Your task to perform on an android device: clear all cookies in the chrome app Image 0: 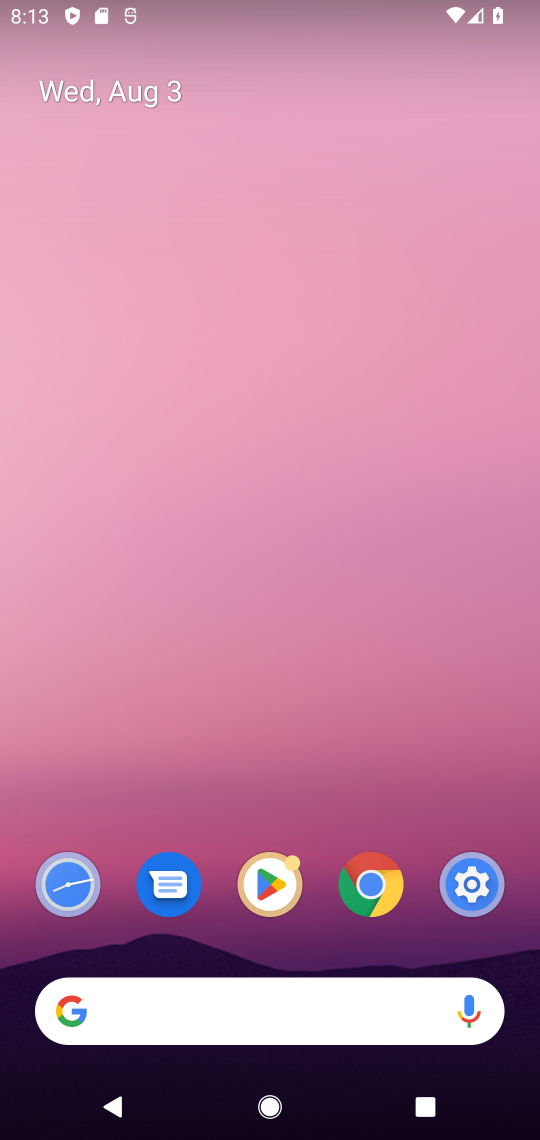
Step 0: click (353, 879)
Your task to perform on an android device: clear all cookies in the chrome app Image 1: 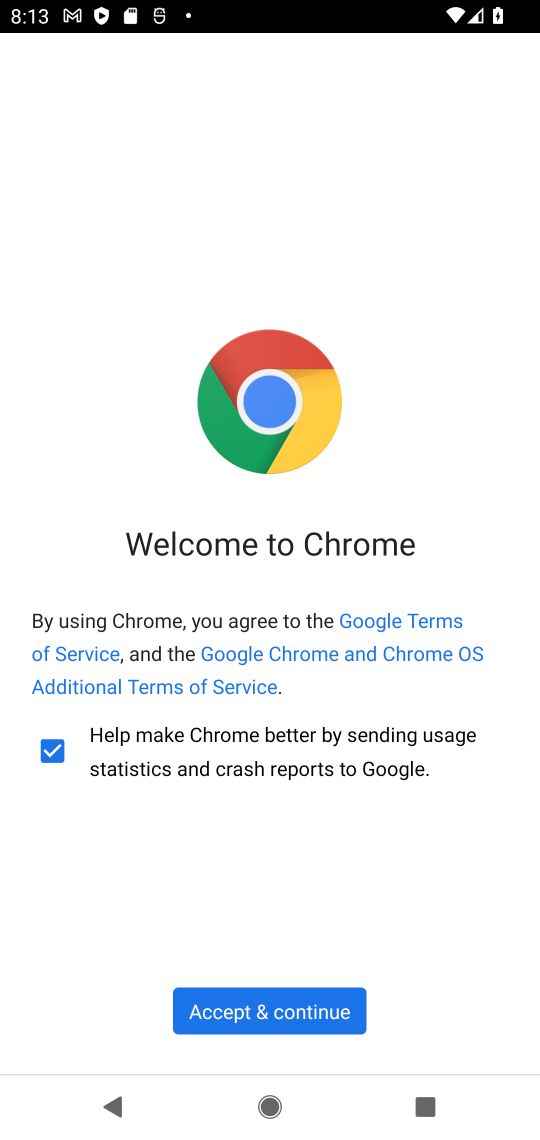
Step 1: click (266, 1010)
Your task to perform on an android device: clear all cookies in the chrome app Image 2: 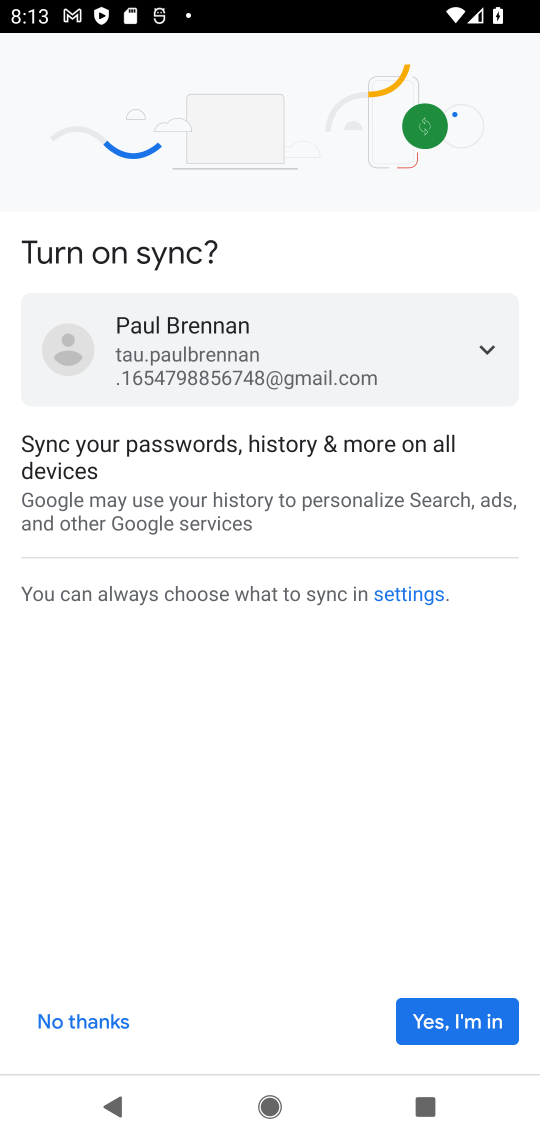
Step 2: click (103, 1018)
Your task to perform on an android device: clear all cookies in the chrome app Image 3: 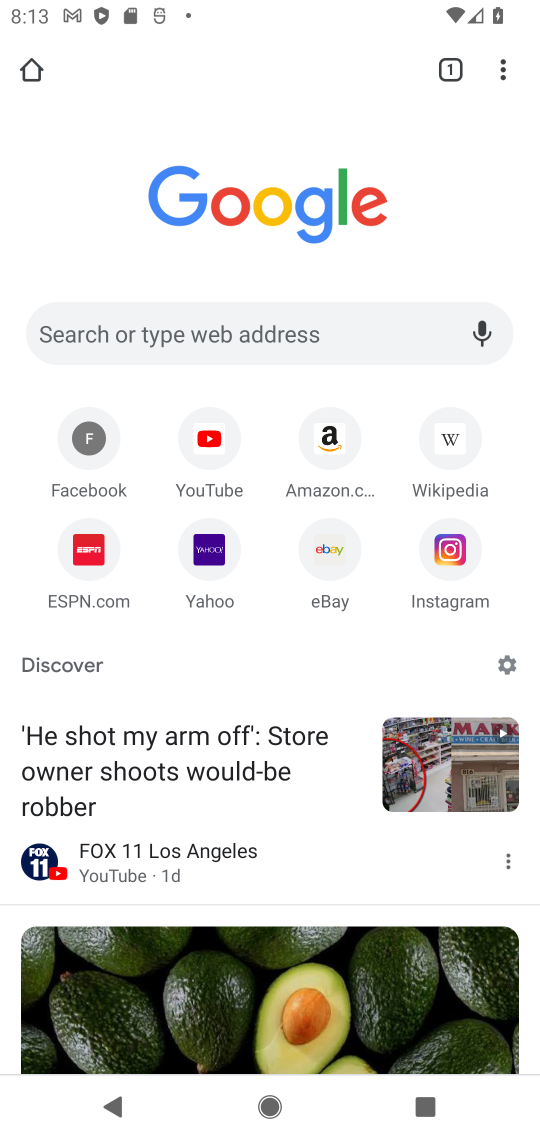
Step 3: click (514, 61)
Your task to perform on an android device: clear all cookies in the chrome app Image 4: 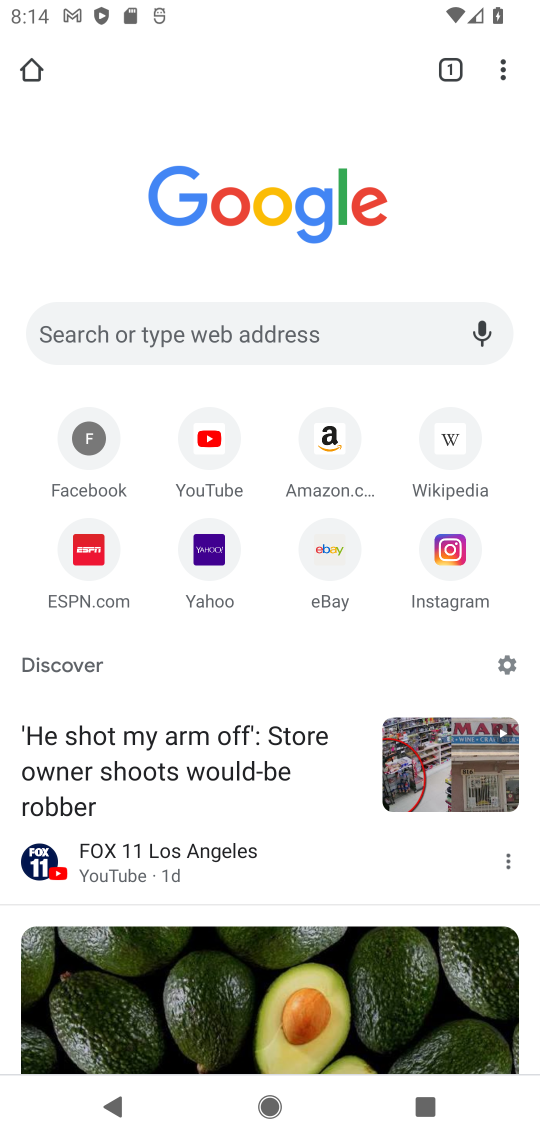
Step 4: click (507, 72)
Your task to perform on an android device: clear all cookies in the chrome app Image 5: 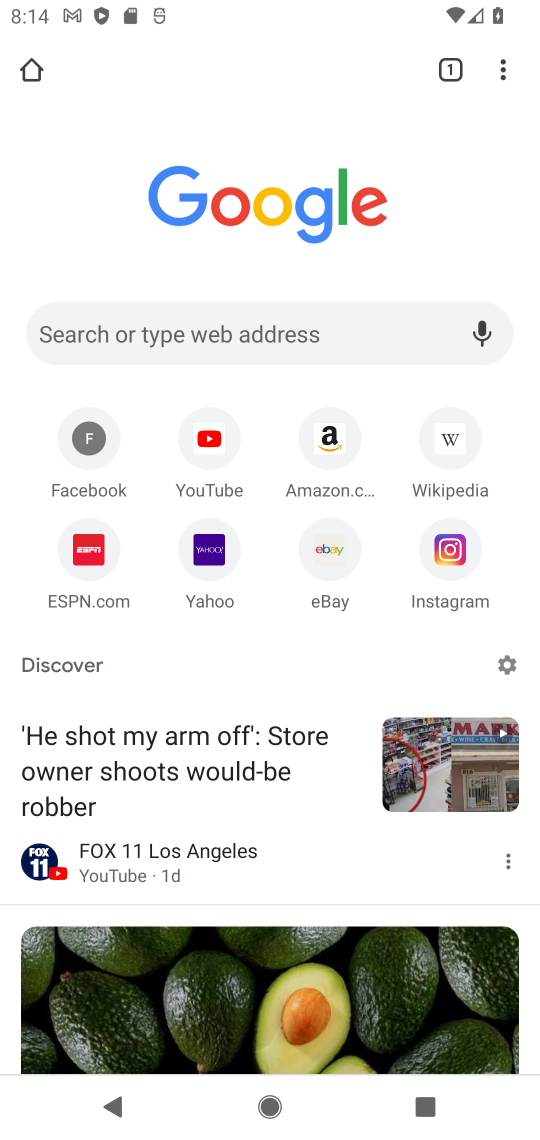
Step 5: click (505, 66)
Your task to perform on an android device: clear all cookies in the chrome app Image 6: 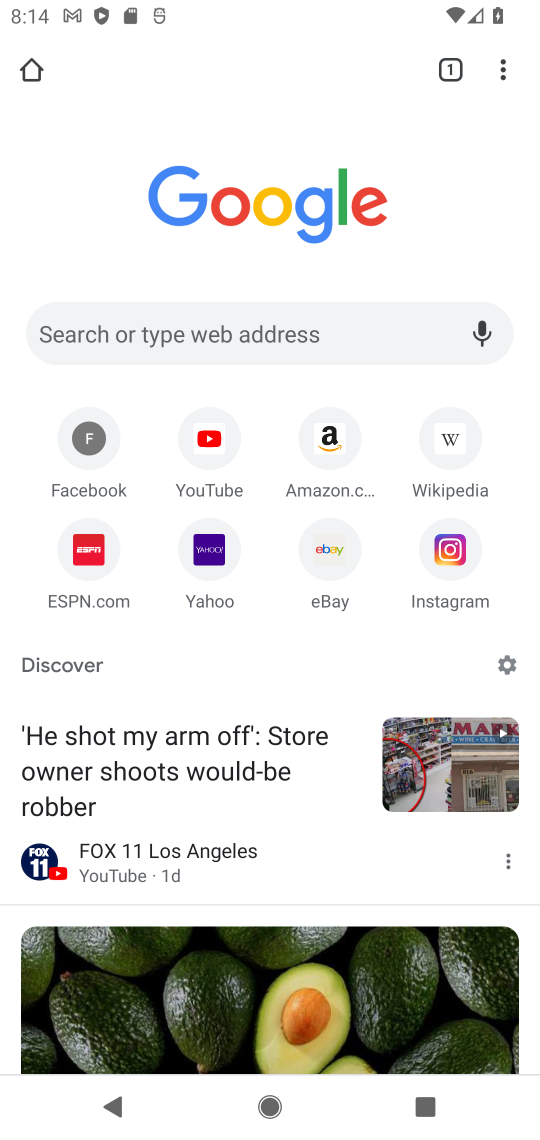
Step 6: click (500, 90)
Your task to perform on an android device: clear all cookies in the chrome app Image 7: 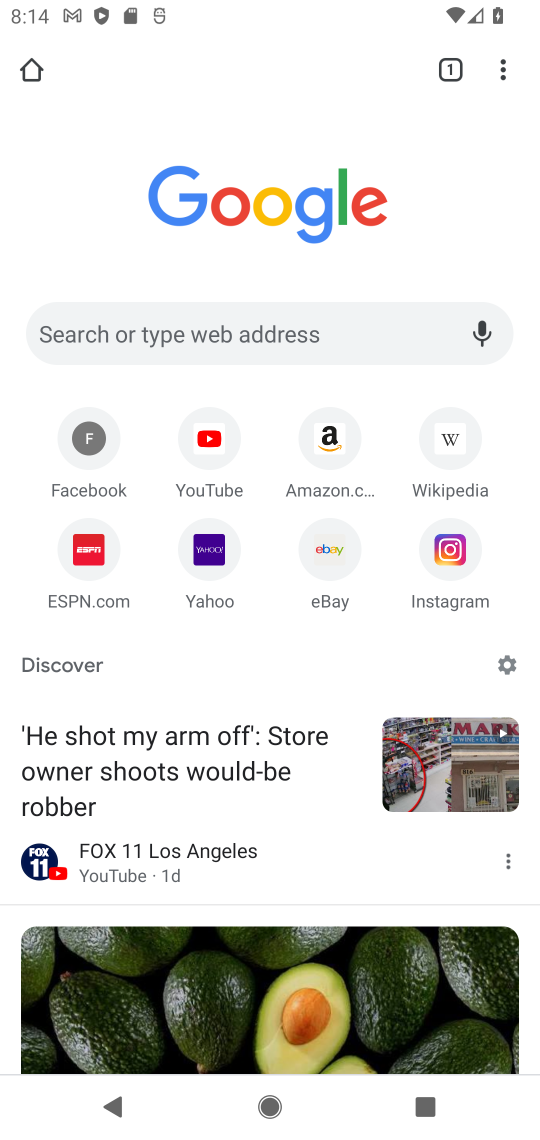
Step 7: click (503, 60)
Your task to perform on an android device: clear all cookies in the chrome app Image 8: 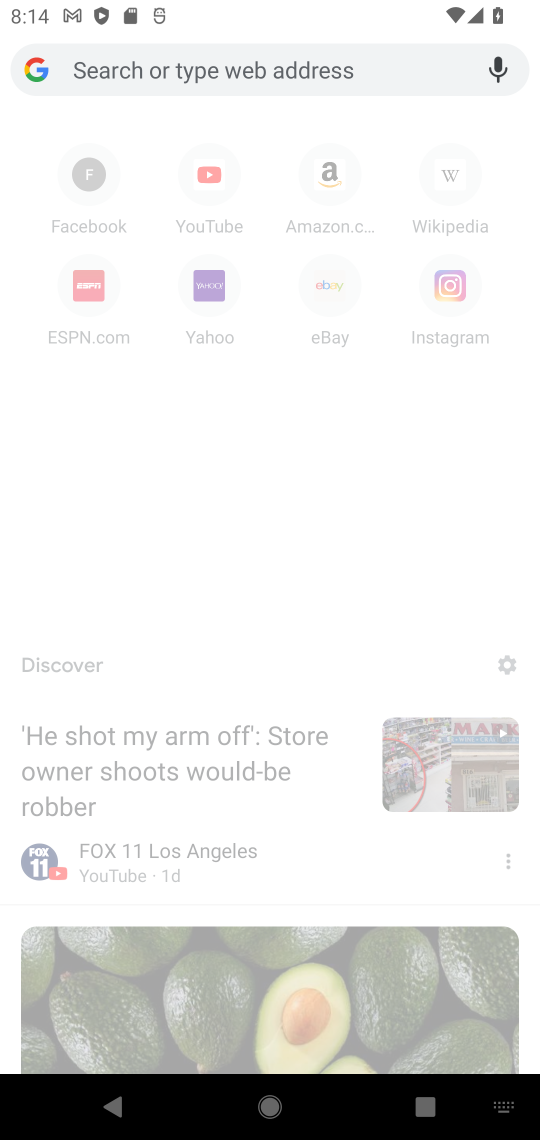
Step 8: press home button
Your task to perform on an android device: clear all cookies in the chrome app Image 9: 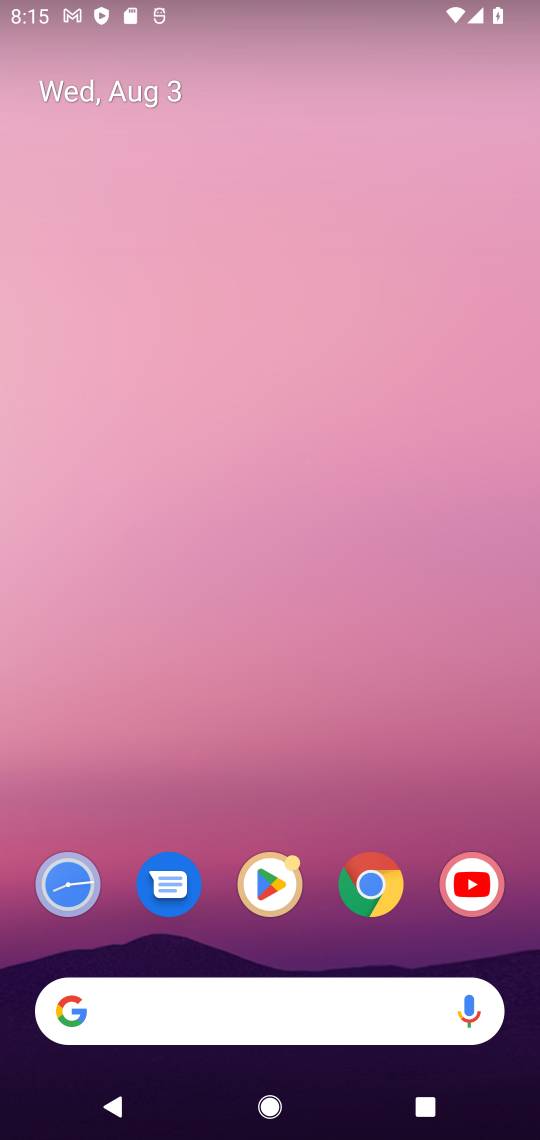
Step 9: click (362, 872)
Your task to perform on an android device: clear all cookies in the chrome app Image 10: 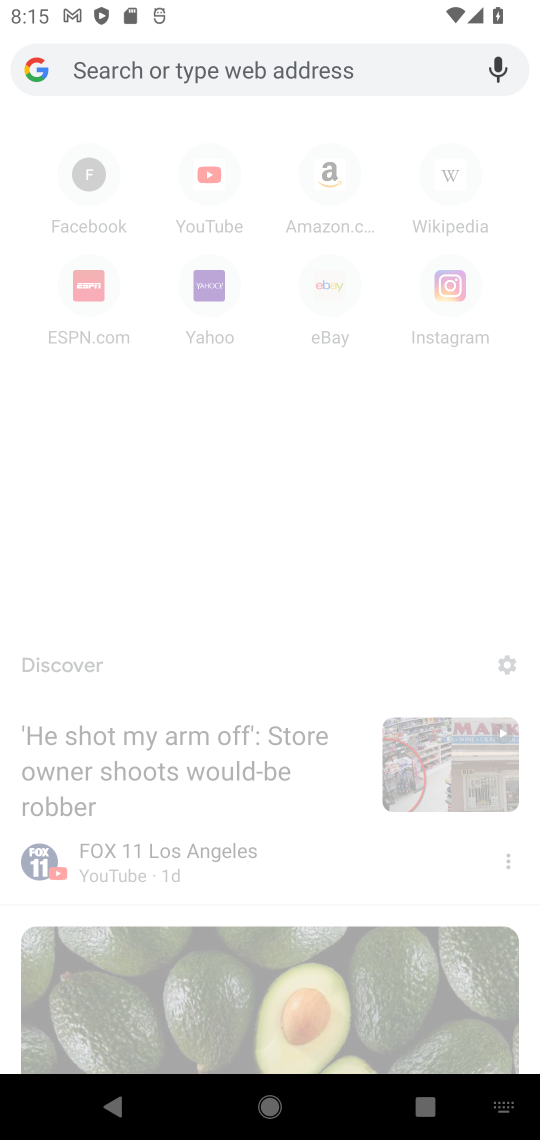
Step 10: click (175, 83)
Your task to perform on an android device: clear all cookies in the chrome app Image 11: 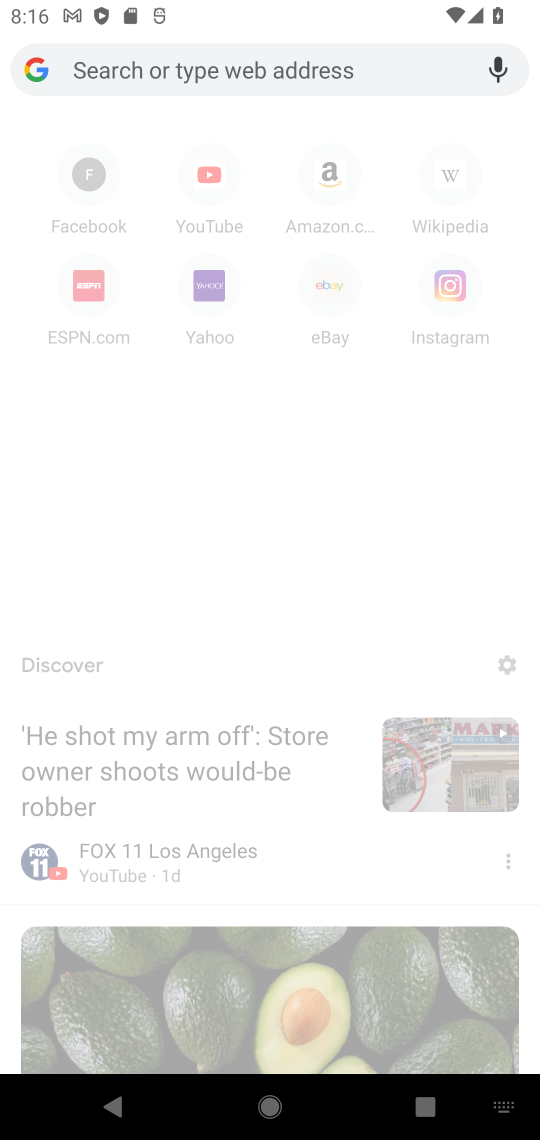
Step 11: task complete